Your task to perform on an android device: Is it going to rain today? Image 0: 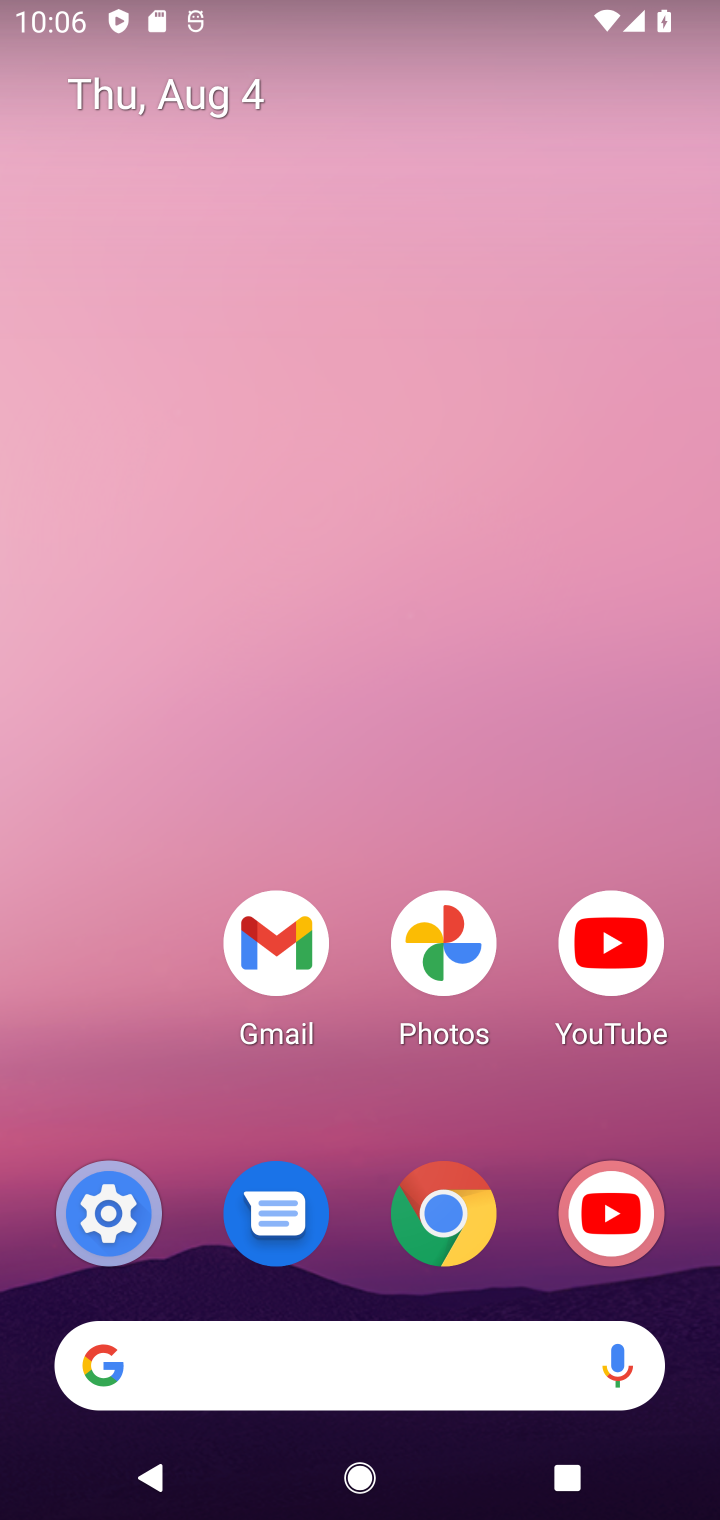
Step 0: click (293, 1381)
Your task to perform on an android device: Is it going to rain today? Image 1: 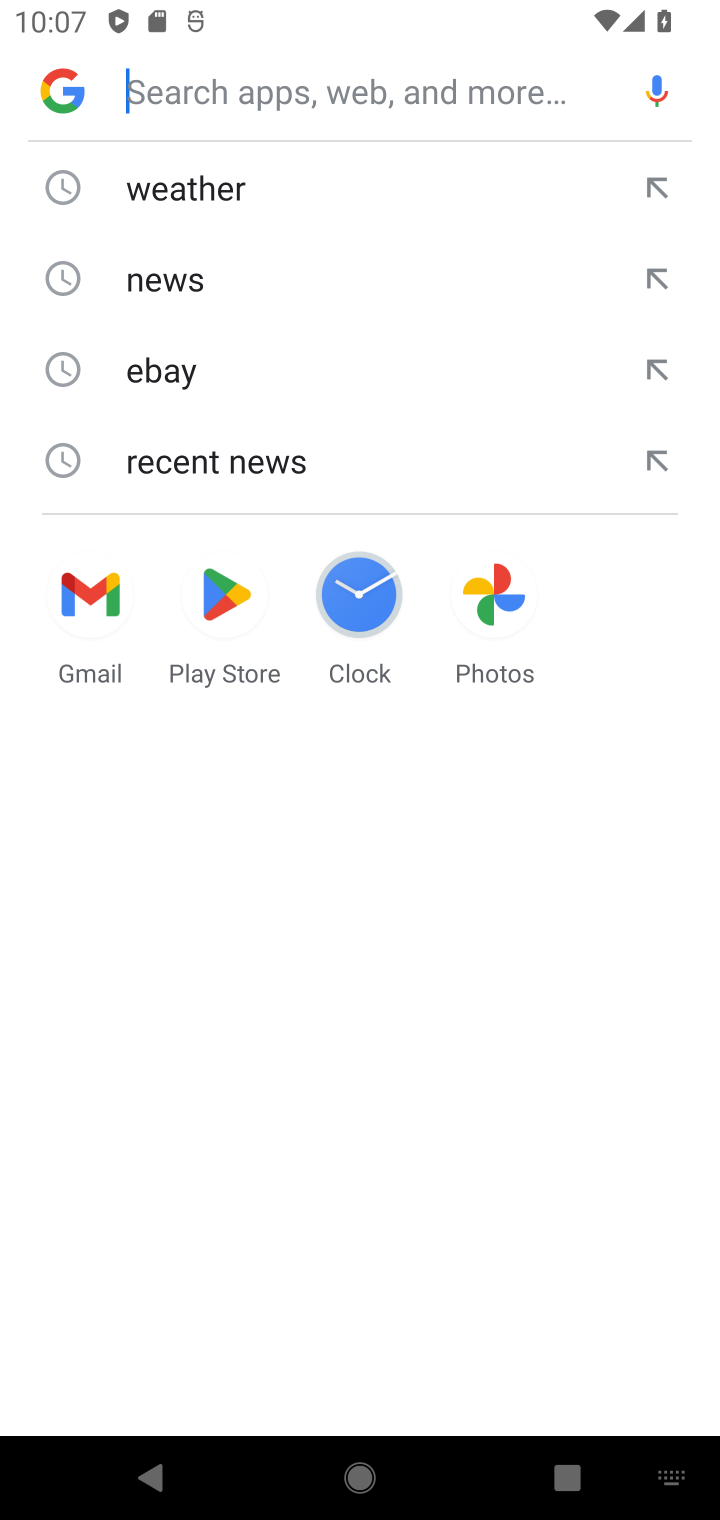
Step 1: click (219, 180)
Your task to perform on an android device: Is it going to rain today? Image 2: 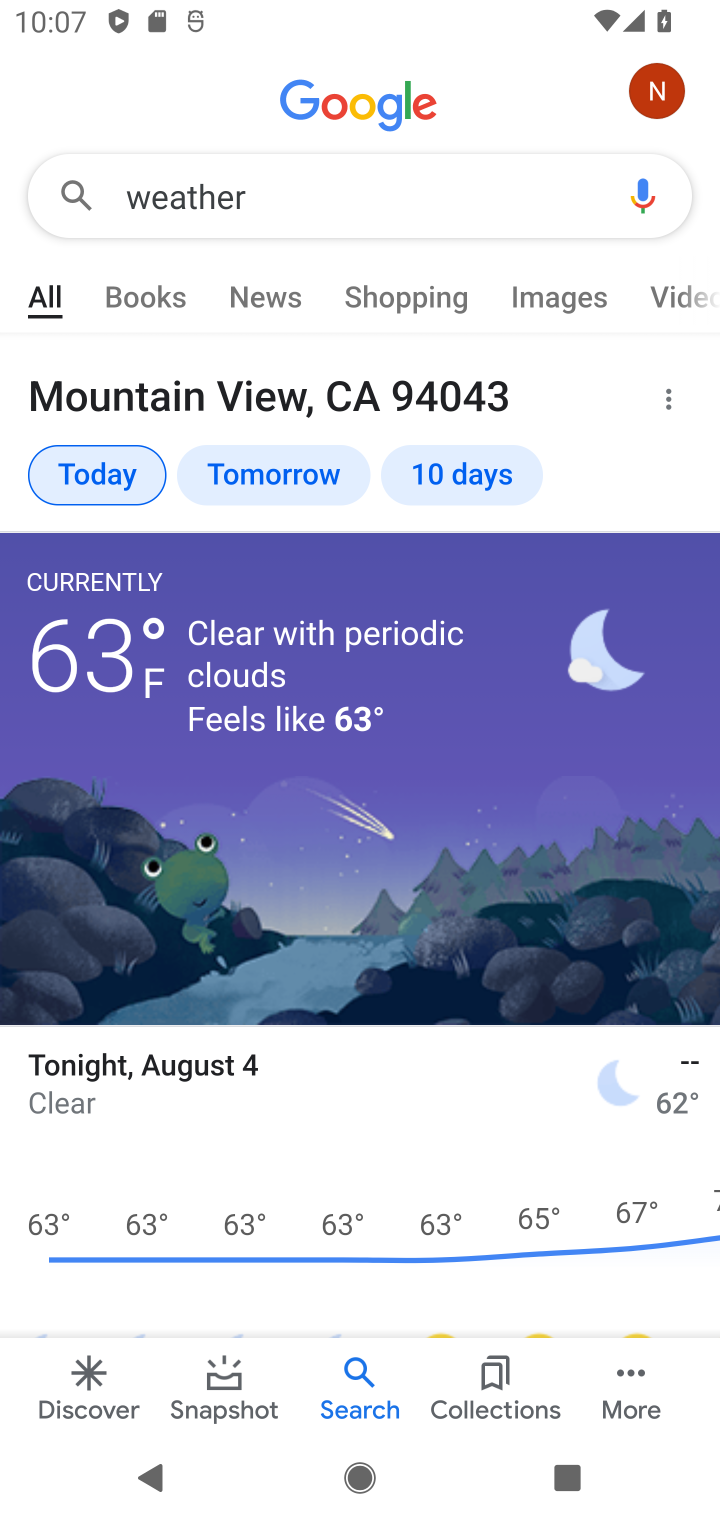
Step 2: task complete